Your task to perform on an android device: Search for pizza restaurants on Maps Image 0: 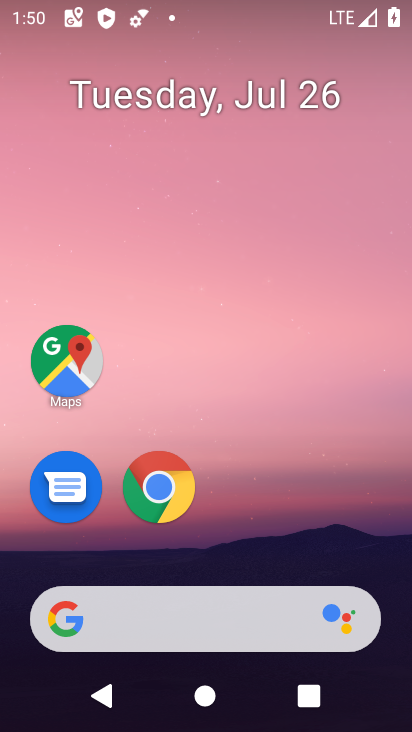
Step 0: drag from (270, 586) to (267, 127)
Your task to perform on an android device: Search for pizza restaurants on Maps Image 1: 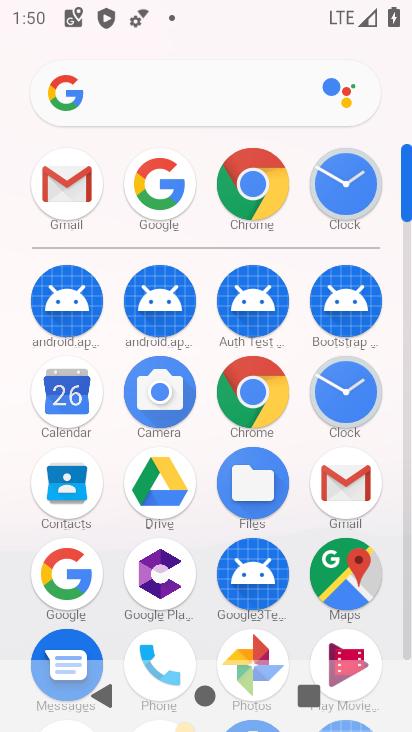
Step 1: drag from (215, 397) to (219, 195)
Your task to perform on an android device: Search for pizza restaurants on Maps Image 2: 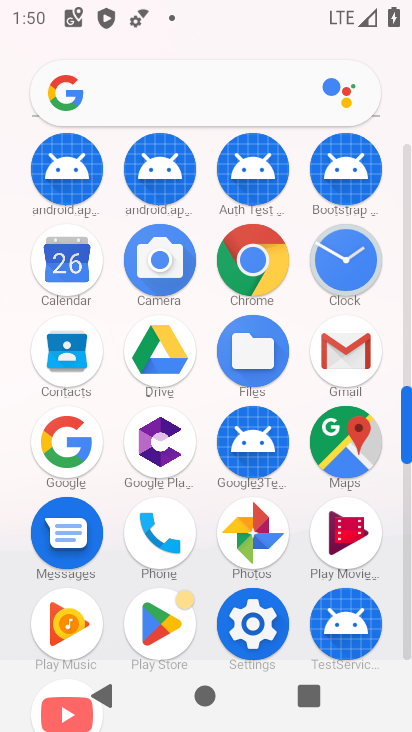
Step 2: click (343, 464)
Your task to perform on an android device: Search for pizza restaurants on Maps Image 3: 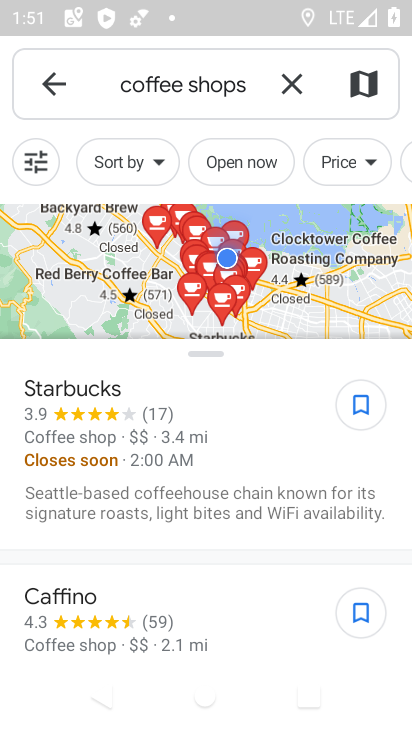
Step 3: click (290, 91)
Your task to perform on an android device: Search for pizza restaurants on Maps Image 4: 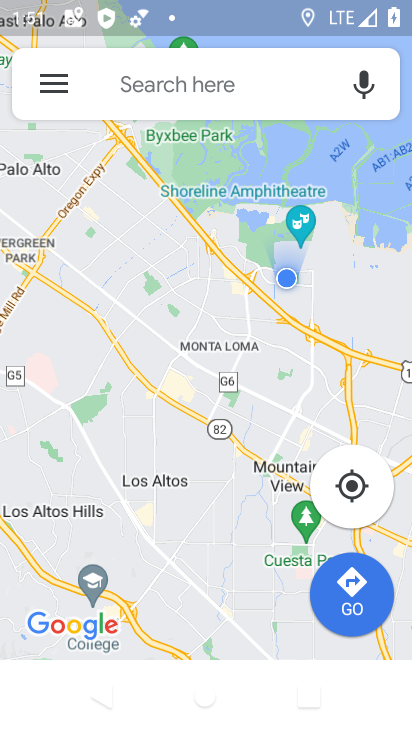
Step 4: click (250, 78)
Your task to perform on an android device: Search for pizza restaurants on Maps Image 5: 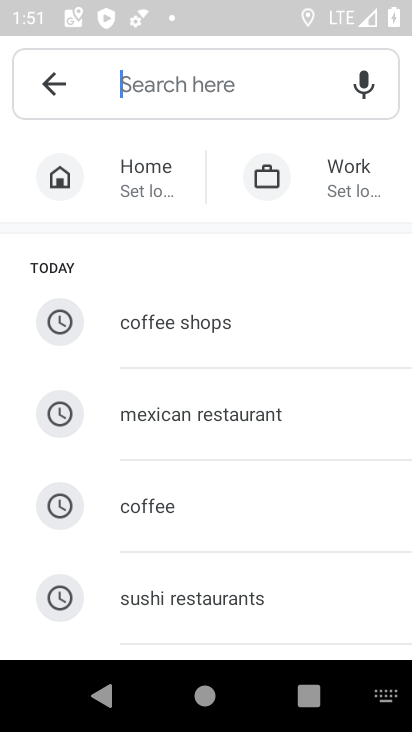
Step 5: type "pizza restaurants"
Your task to perform on an android device: Search for pizza restaurants on Maps Image 6: 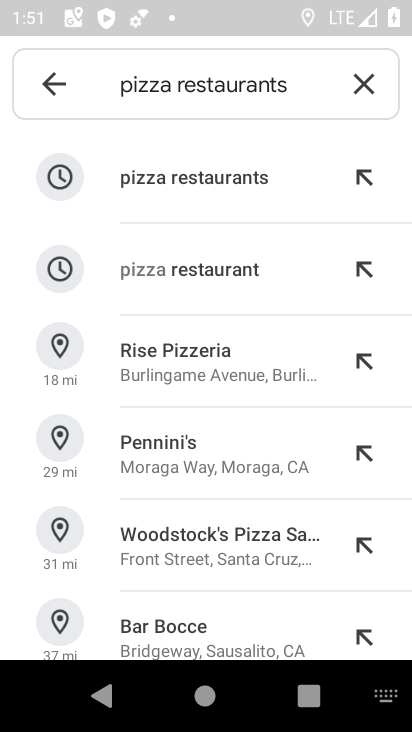
Step 6: click (188, 192)
Your task to perform on an android device: Search for pizza restaurants on Maps Image 7: 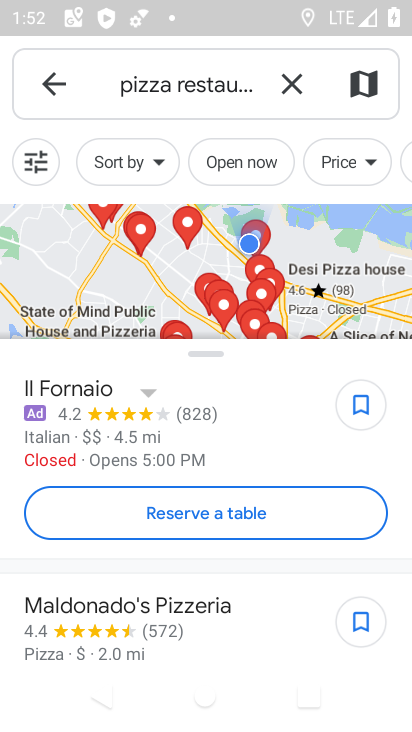
Step 7: task complete